Your task to perform on an android device: turn pop-ups on in chrome Image 0: 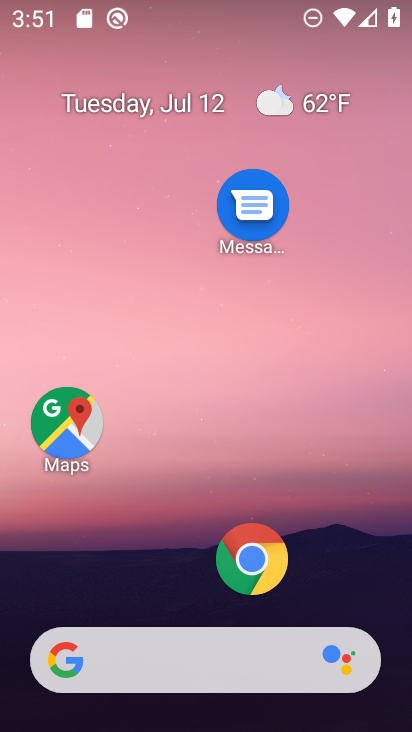
Step 0: click (247, 555)
Your task to perform on an android device: turn pop-ups on in chrome Image 1: 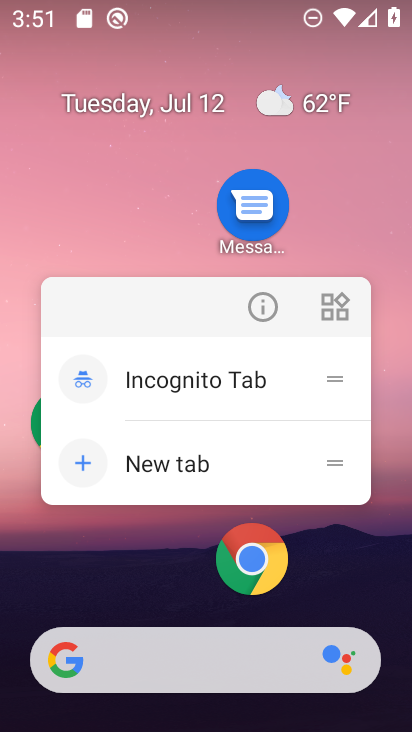
Step 1: click (225, 582)
Your task to perform on an android device: turn pop-ups on in chrome Image 2: 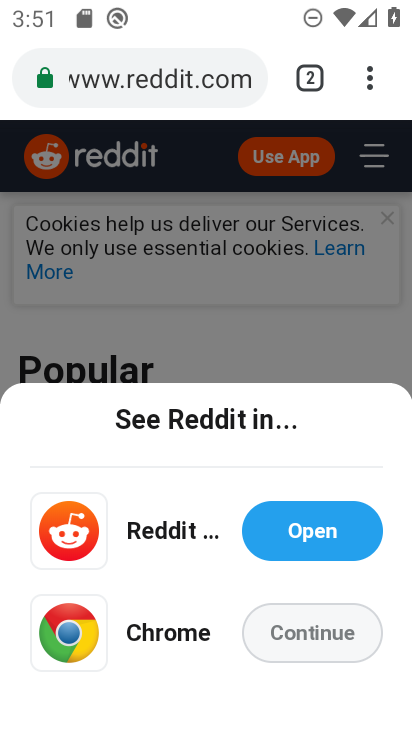
Step 2: drag from (369, 72) to (100, 602)
Your task to perform on an android device: turn pop-ups on in chrome Image 3: 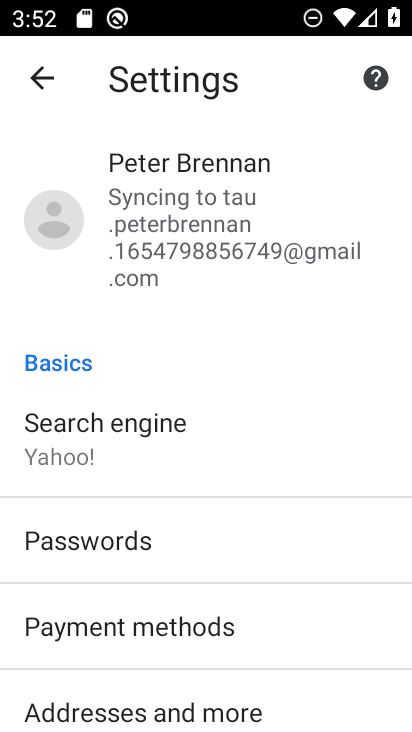
Step 3: drag from (159, 649) to (286, 75)
Your task to perform on an android device: turn pop-ups on in chrome Image 4: 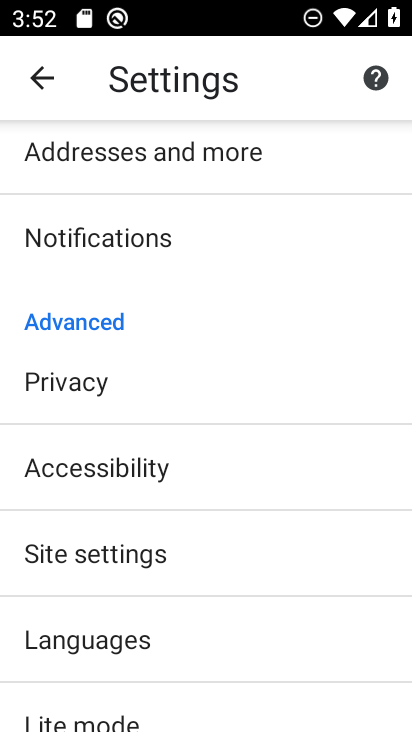
Step 4: click (155, 552)
Your task to perform on an android device: turn pop-ups on in chrome Image 5: 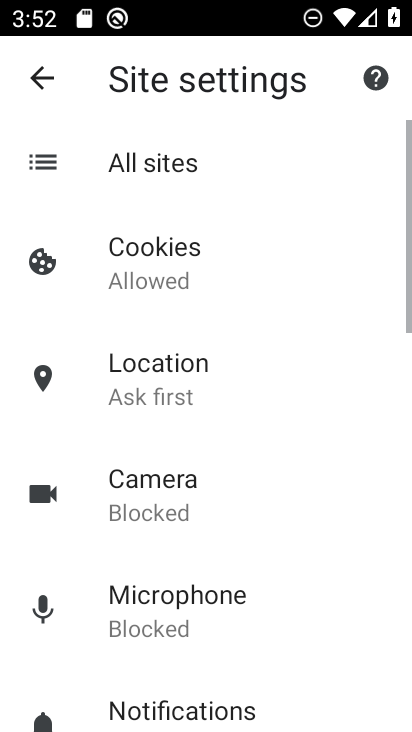
Step 5: drag from (207, 647) to (328, 100)
Your task to perform on an android device: turn pop-ups on in chrome Image 6: 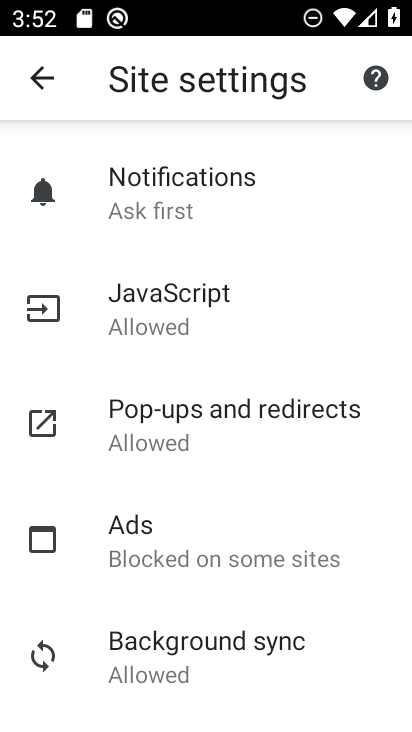
Step 6: click (202, 423)
Your task to perform on an android device: turn pop-ups on in chrome Image 7: 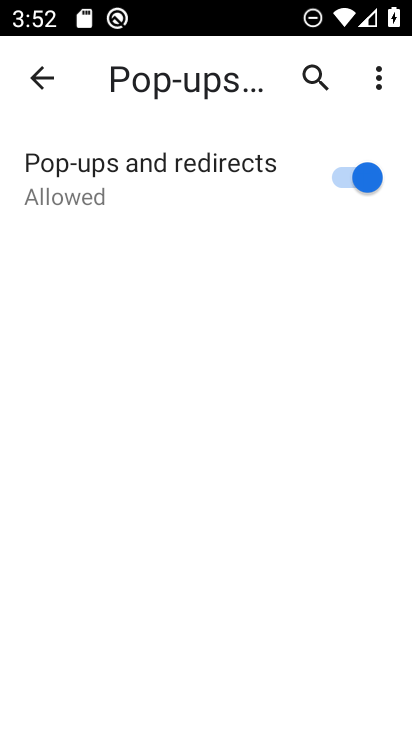
Step 7: task complete